Your task to perform on an android device: Search for pizza restaurants on Maps Image 0: 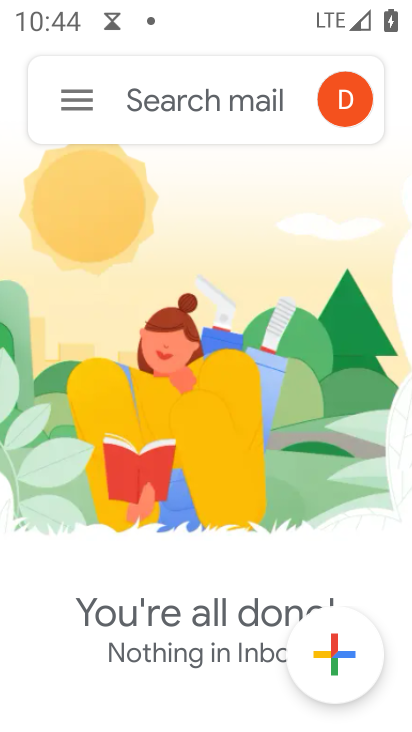
Step 0: press home button
Your task to perform on an android device: Search for pizza restaurants on Maps Image 1: 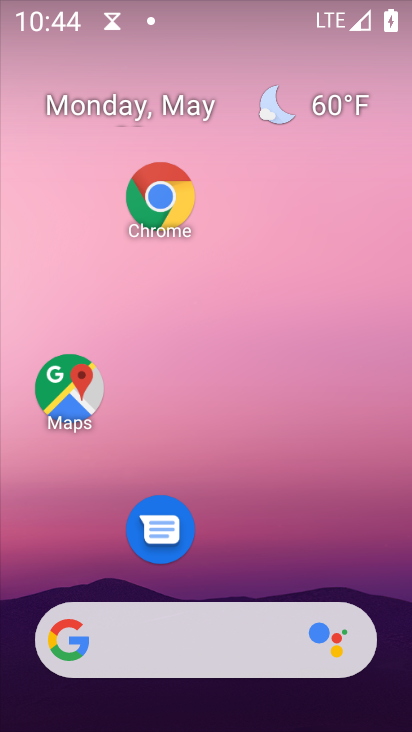
Step 1: click (69, 401)
Your task to perform on an android device: Search for pizza restaurants on Maps Image 2: 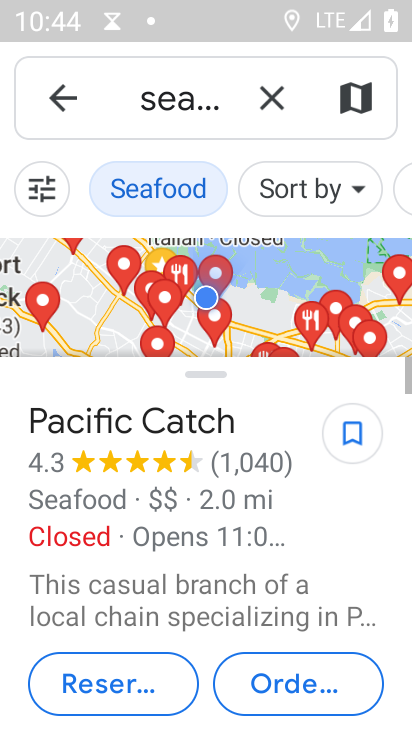
Step 2: click (274, 100)
Your task to perform on an android device: Search for pizza restaurants on Maps Image 3: 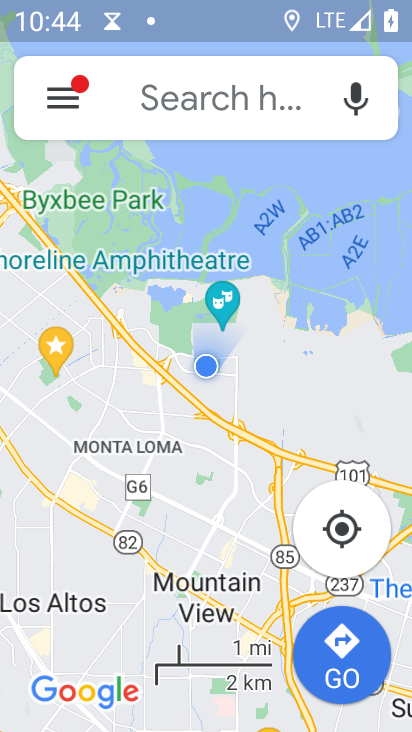
Step 3: click (226, 102)
Your task to perform on an android device: Search for pizza restaurants on Maps Image 4: 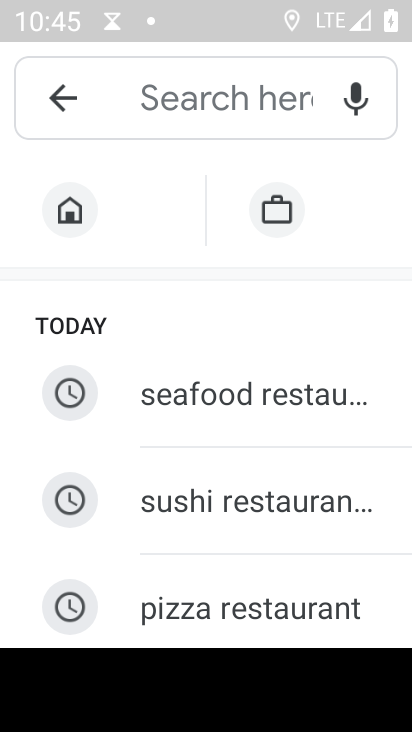
Step 4: click (264, 613)
Your task to perform on an android device: Search for pizza restaurants on Maps Image 5: 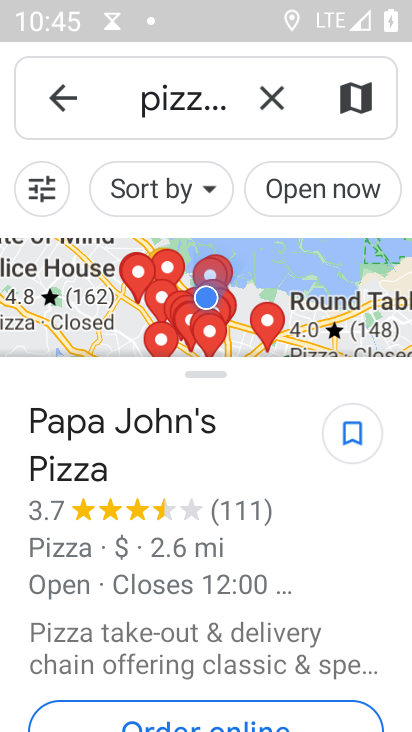
Step 5: task complete